Your task to perform on an android device: Open battery settings Image 0: 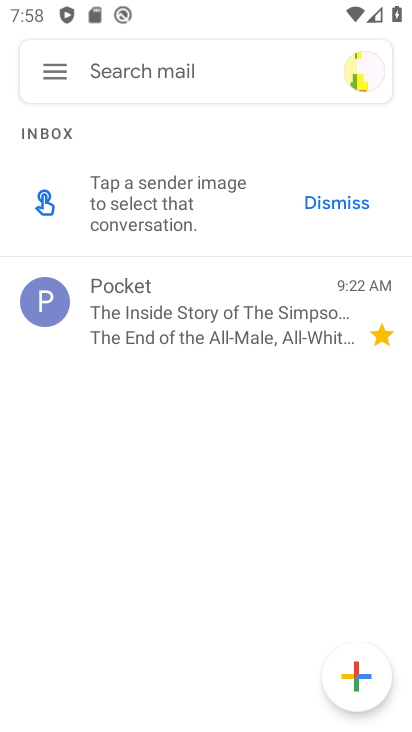
Step 0: press home button
Your task to perform on an android device: Open battery settings Image 1: 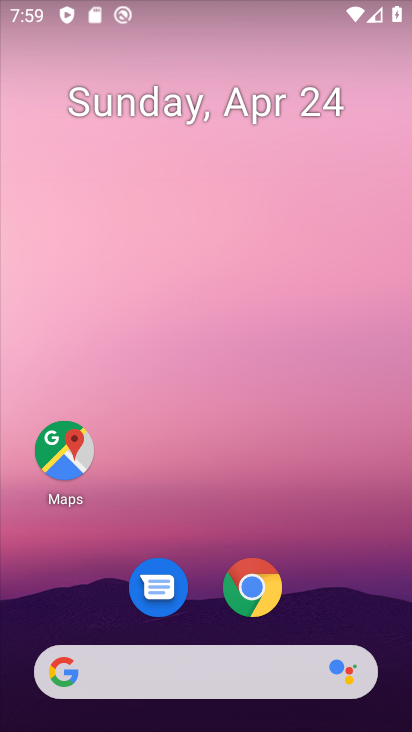
Step 1: drag from (347, 565) to (321, 180)
Your task to perform on an android device: Open battery settings Image 2: 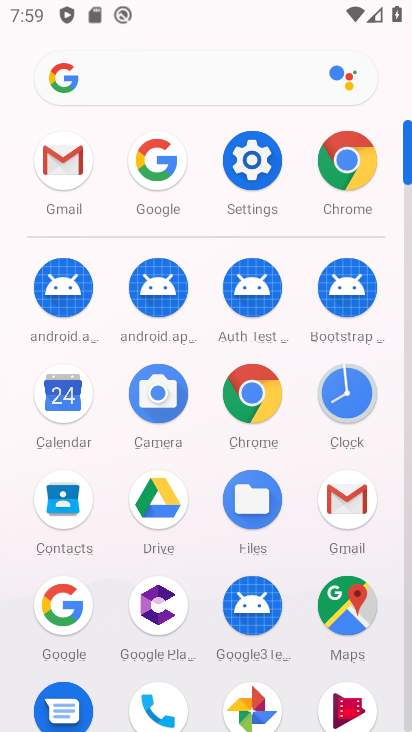
Step 2: click (257, 151)
Your task to perform on an android device: Open battery settings Image 3: 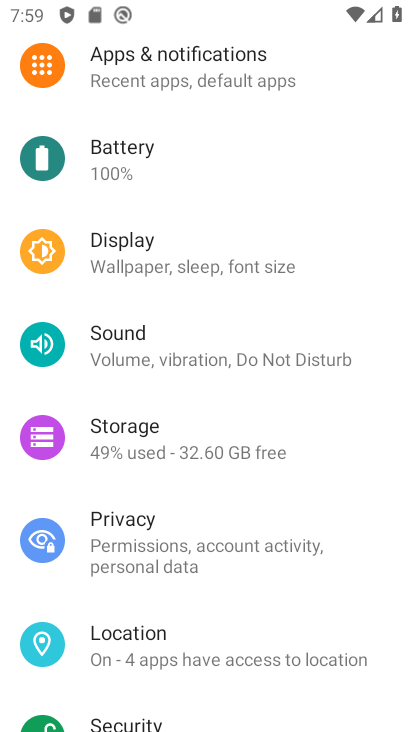
Step 3: drag from (281, 594) to (311, 258)
Your task to perform on an android device: Open battery settings Image 4: 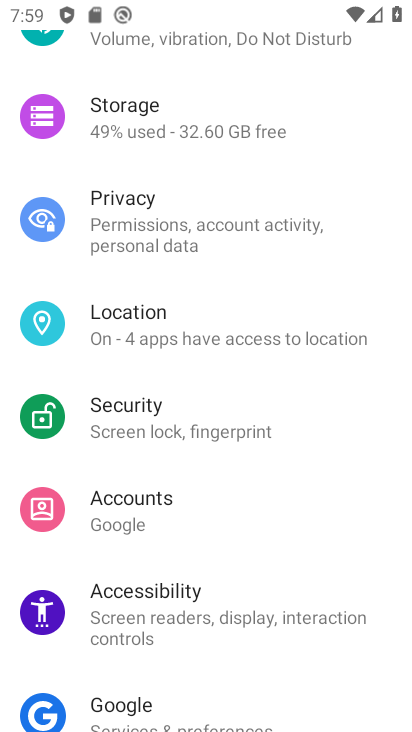
Step 4: drag from (272, 183) to (272, 469)
Your task to perform on an android device: Open battery settings Image 5: 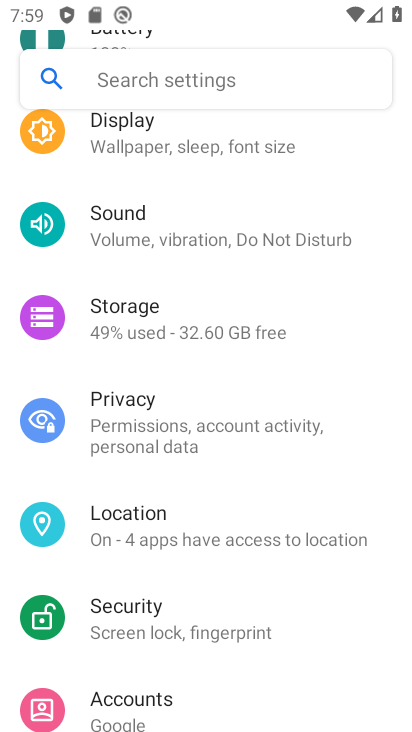
Step 5: drag from (196, 191) to (267, 468)
Your task to perform on an android device: Open battery settings Image 6: 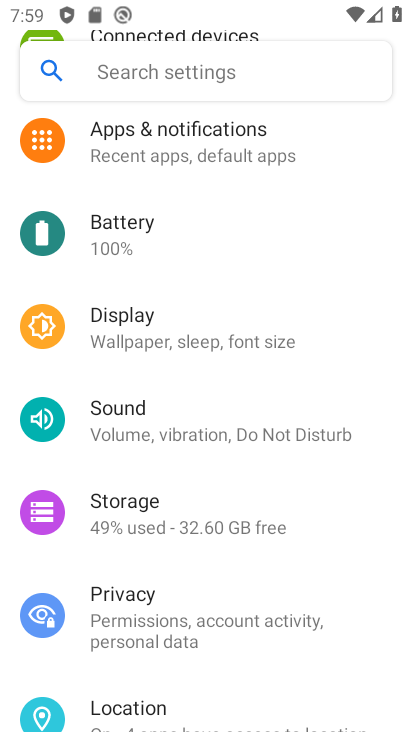
Step 6: click (137, 235)
Your task to perform on an android device: Open battery settings Image 7: 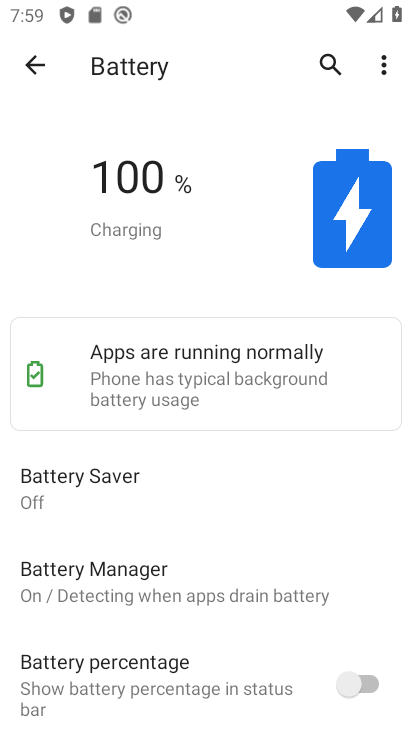
Step 7: task complete